Your task to perform on an android device: toggle notifications settings in the gmail app Image 0: 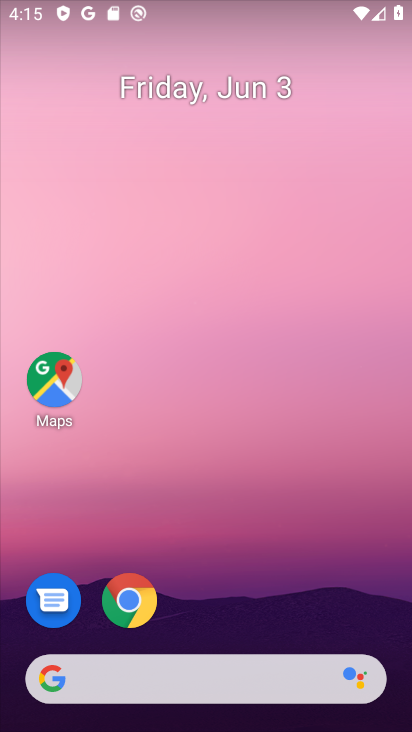
Step 0: drag from (391, 678) to (296, 180)
Your task to perform on an android device: toggle notifications settings in the gmail app Image 1: 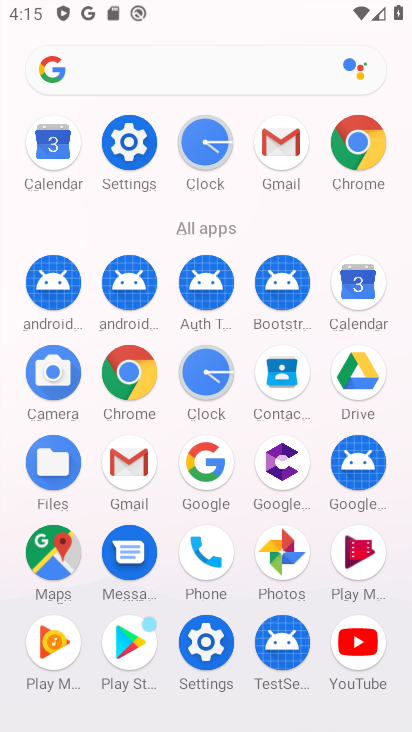
Step 1: click (277, 162)
Your task to perform on an android device: toggle notifications settings in the gmail app Image 2: 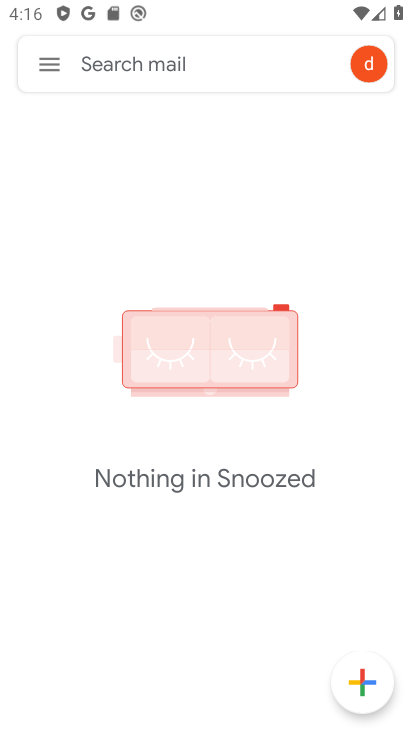
Step 2: click (38, 73)
Your task to perform on an android device: toggle notifications settings in the gmail app Image 3: 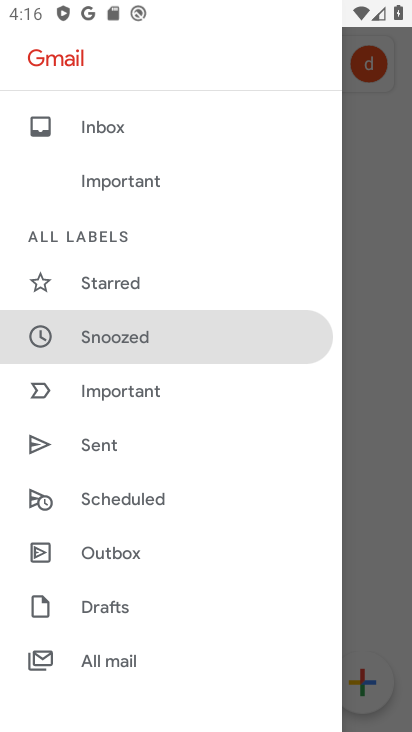
Step 3: drag from (192, 613) to (158, 354)
Your task to perform on an android device: toggle notifications settings in the gmail app Image 4: 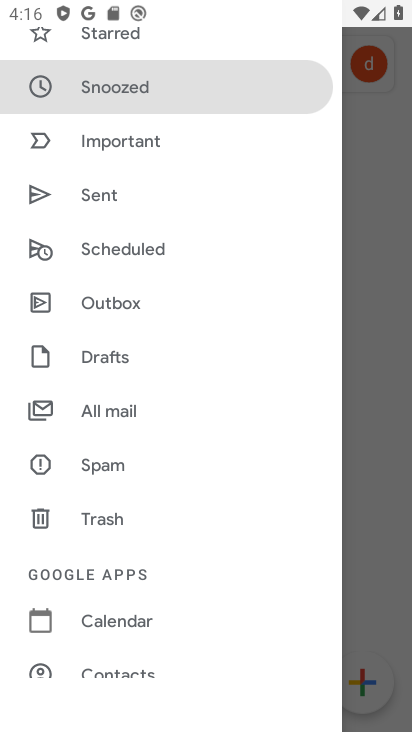
Step 4: drag from (210, 638) to (151, 297)
Your task to perform on an android device: toggle notifications settings in the gmail app Image 5: 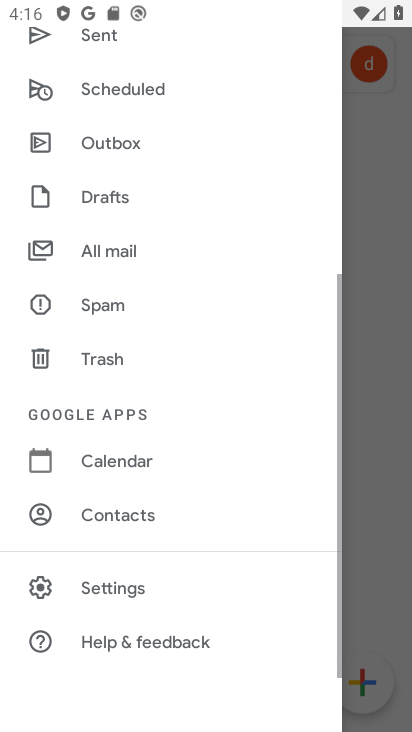
Step 5: click (89, 587)
Your task to perform on an android device: toggle notifications settings in the gmail app Image 6: 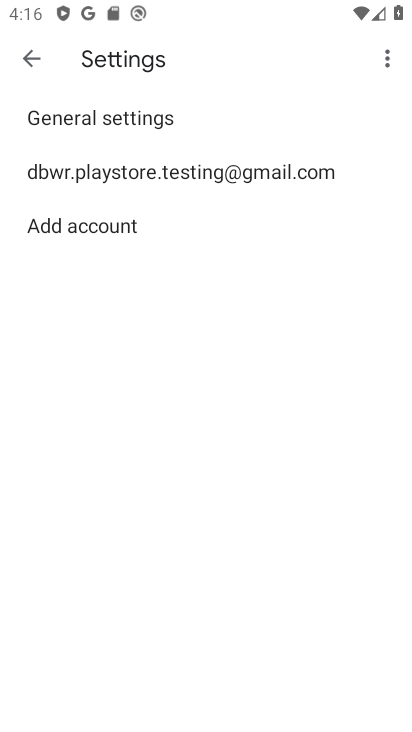
Step 6: click (79, 114)
Your task to perform on an android device: toggle notifications settings in the gmail app Image 7: 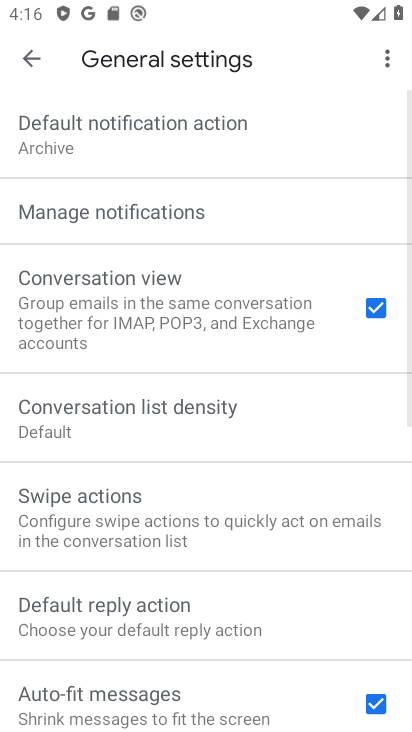
Step 7: click (89, 208)
Your task to perform on an android device: toggle notifications settings in the gmail app Image 8: 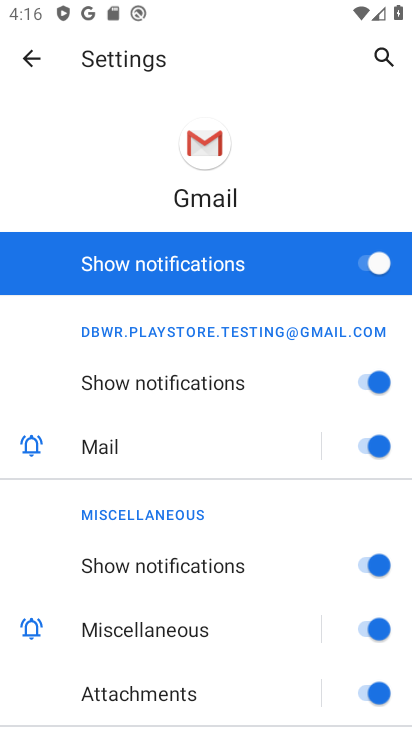
Step 8: click (367, 263)
Your task to perform on an android device: toggle notifications settings in the gmail app Image 9: 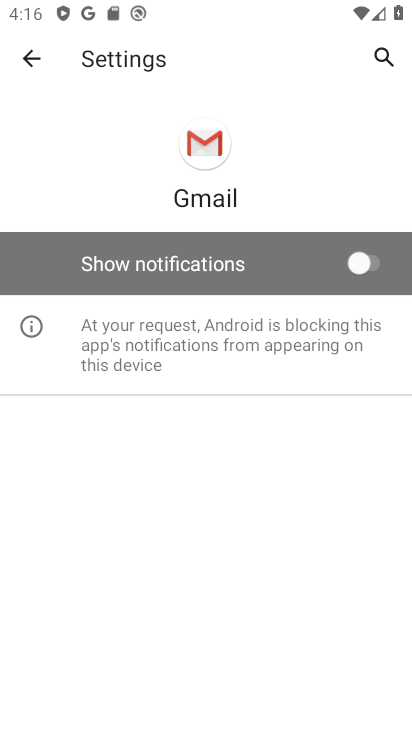
Step 9: task complete